Your task to perform on an android device: turn on javascript in the chrome app Image 0: 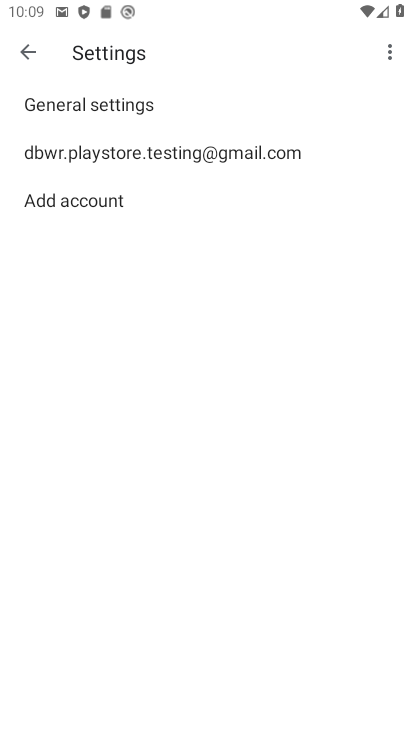
Step 0: press home button
Your task to perform on an android device: turn on javascript in the chrome app Image 1: 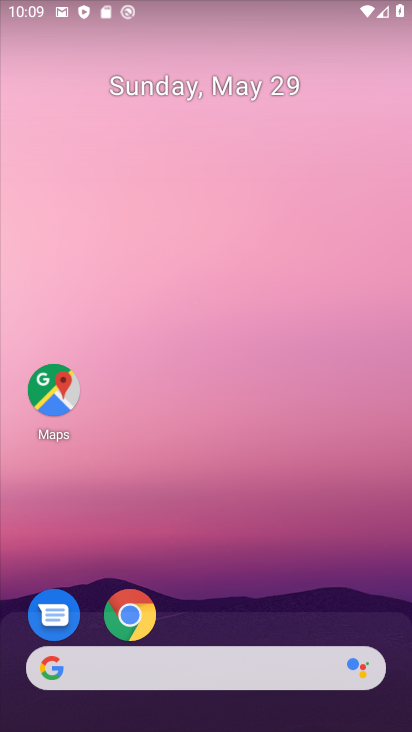
Step 1: drag from (351, 612) to (353, 61)
Your task to perform on an android device: turn on javascript in the chrome app Image 2: 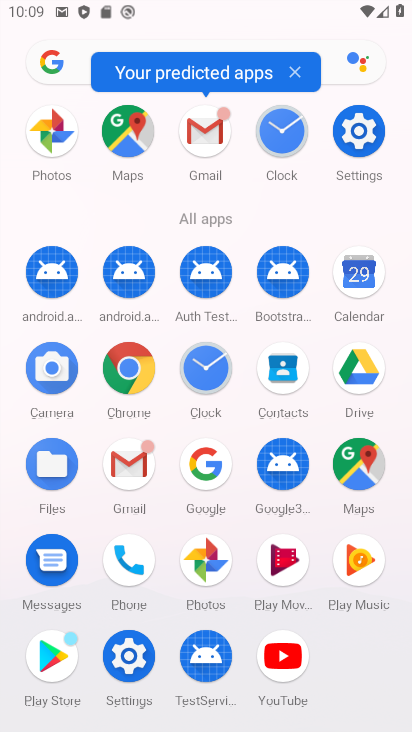
Step 2: click (130, 379)
Your task to perform on an android device: turn on javascript in the chrome app Image 3: 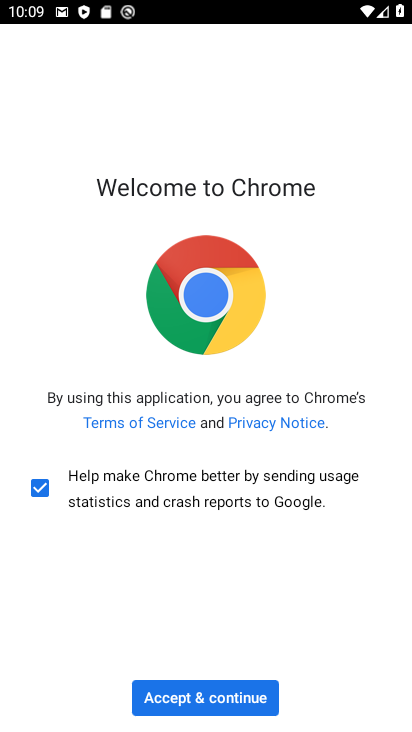
Step 3: click (196, 698)
Your task to perform on an android device: turn on javascript in the chrome app Image 4: 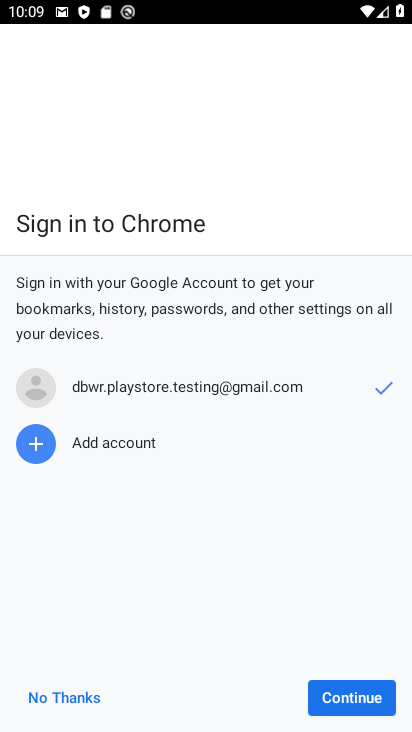
Step 4: click (326, 703)
Your task to perform on an android device: turn on javascript in the chrome app Image 5: 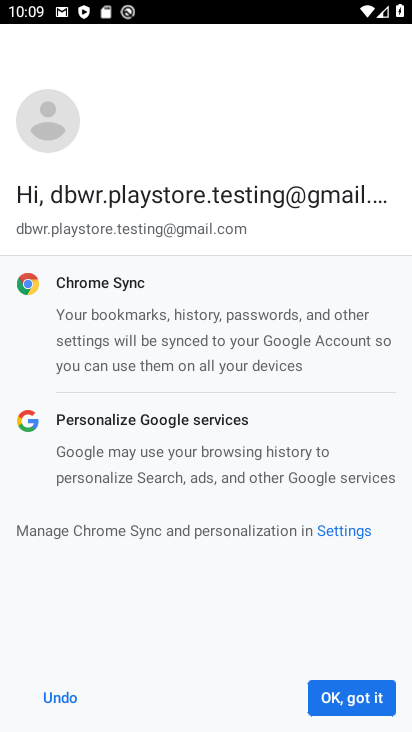
Step 5: click (326, 703)
Your task to perform on an android device: turn on javascript in the chrome app Image 6: 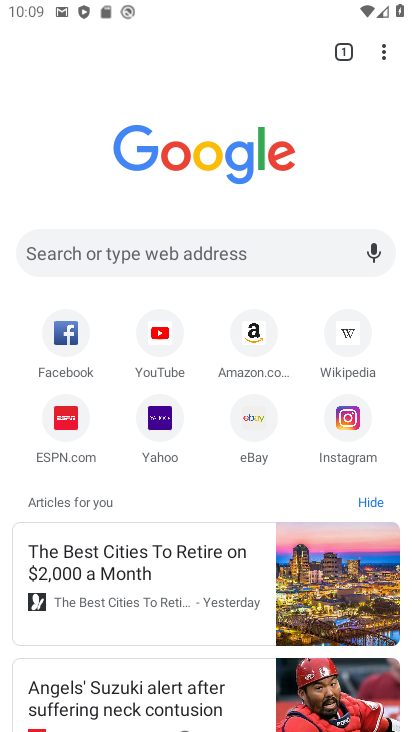
Step 6: click (384, 59)
Your task to perform on an android device: turn on javascript in the chrome app Image 7: 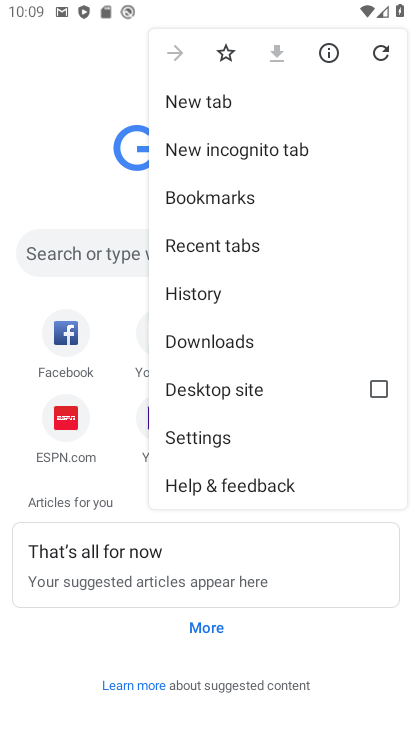
Step 7: click (237, 439)
Your task to perform on an android device: turn on javascript in the chrome app Image 8: 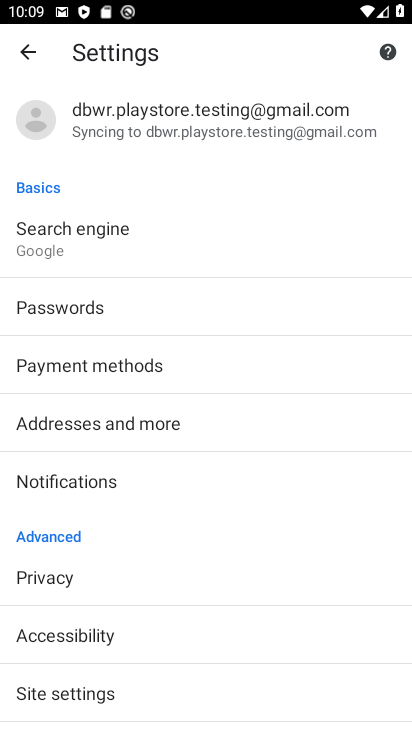
Step 8: drag from (305, 625) to (313, 478)
Your task to perform on an android device: turn on javascript in the chrome app Image 9: 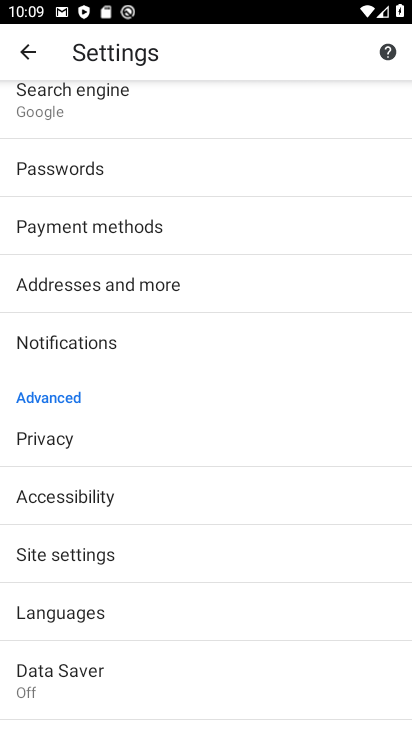
Step 9: drag from (334, 566) to (335, 442)
Your task to perform on an android device: turn on javascript in the chrome app Image 10: 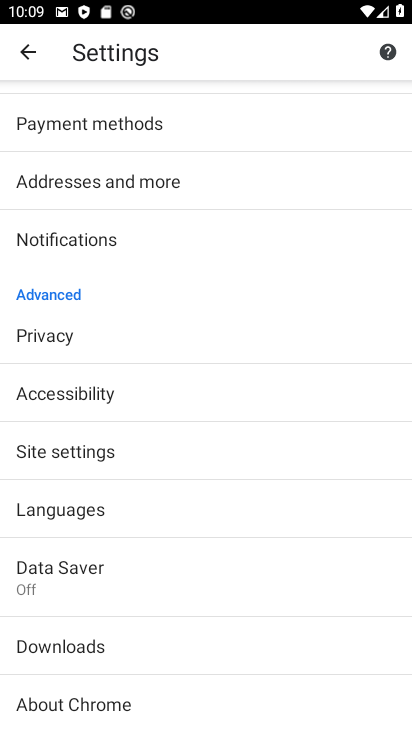
Step 10: drag from (332, 567) to (331, 384)
Your task to perform on an android device: turn on javascript in the chrome app Image 11: 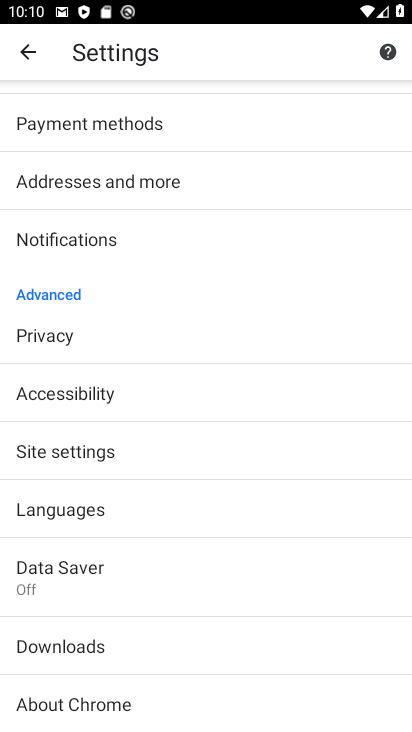
Step 11: drag from (334, 605) to (323, 384)
Your task to perform on an android device: turn on javascript in the chrome app Image 12: 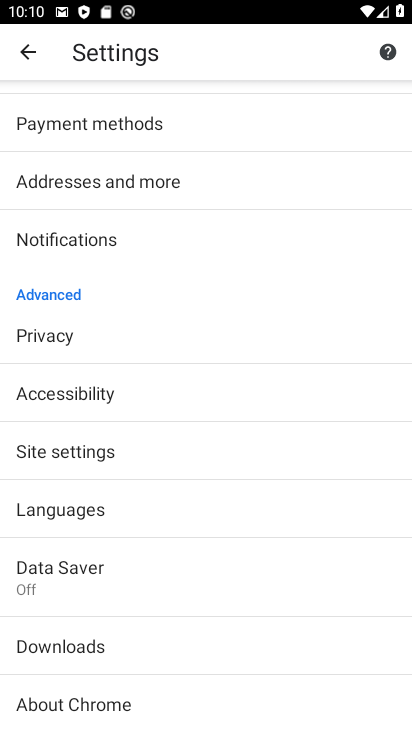
Step 12: drag from (324, 282) to (320, 432)
Your task to perform on an android device: turn on javascript in the chrome app Image 13: 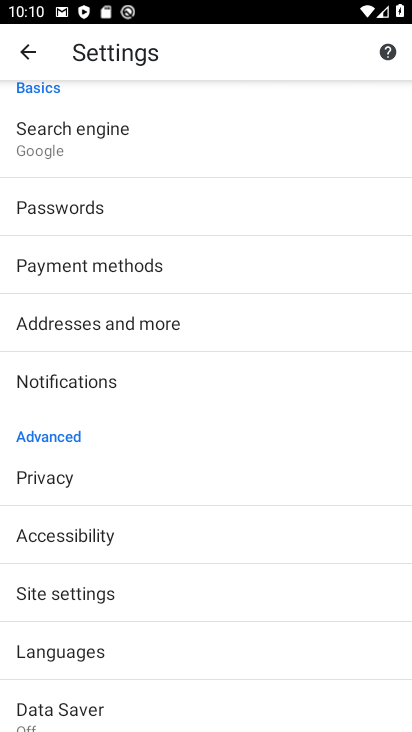
Step 13: drag from (335, 284) to (346, 379)
Your task to perform on an android device: turn on javascript in the chrome app Image 14: 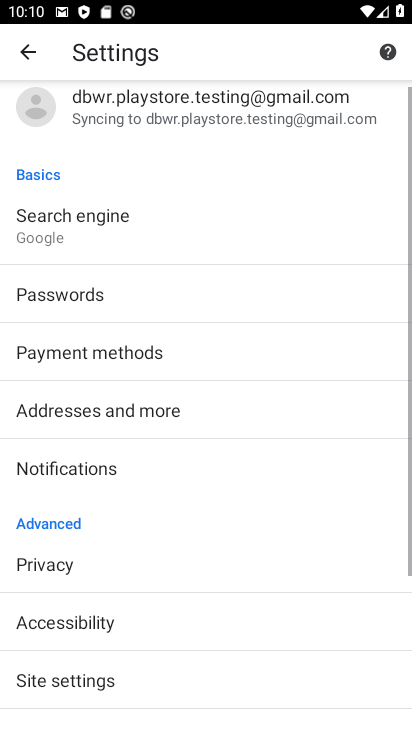
Step 14: drag from (339, 180) to (337, 366)
Your task to perform on an android device: turn on javascript in the chrome app Image 15: 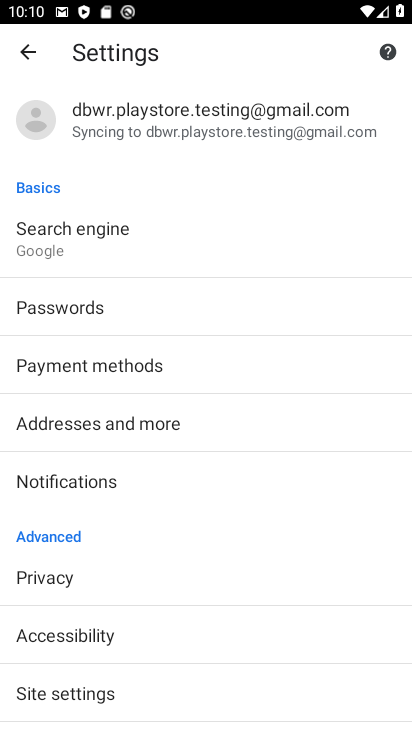
Step 15: drag from (348, 482) to (341, 373)
Your task to perform on an android device: turn on javascript in the chrome app Image 16: 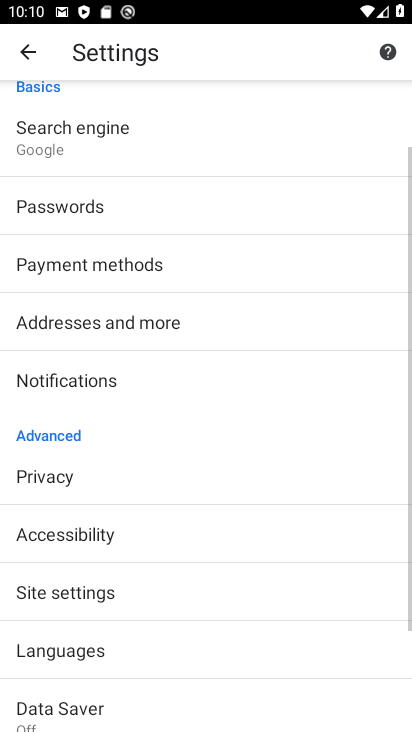
Step 16: drag from (338, 521) to (336, 343)
Your task to perform on an android device: turn on javascript in the chrome app Image 17: 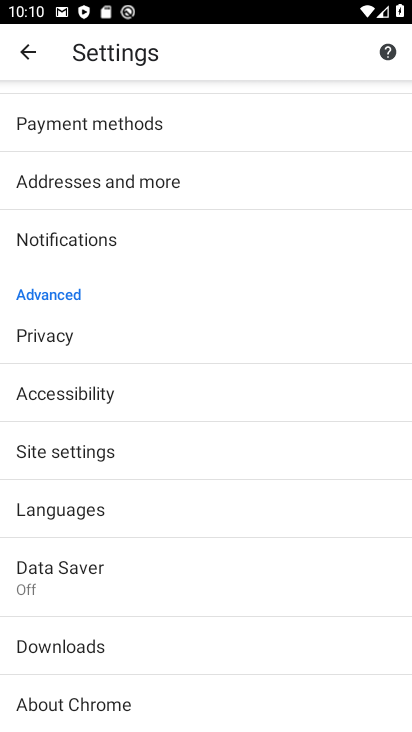
Step 17: drag from (293, 567) to (316, 342)
Your task to perform on an android device: turn on javascript in the chrome app Image 18: 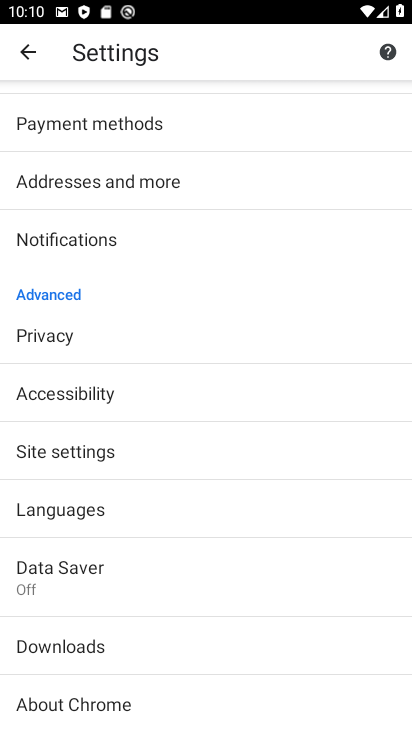
Step 18: click (254, 447)
Your task to perform on an android device: turn on javascript in the chrome app Image 19: 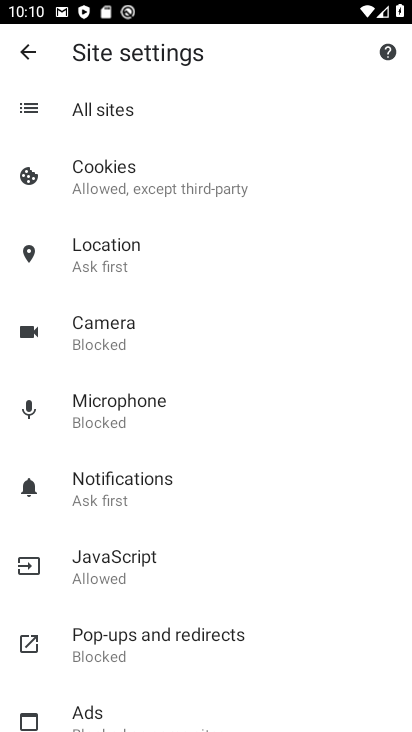
Step 19: drag from (293, 534) to (292, 399)
Your task to perform on an android device: turn on javascript in the chrome app Image 20: 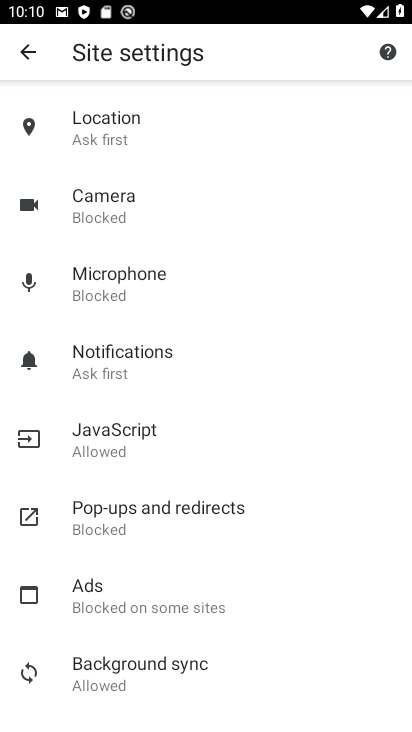
Step 20: click (140, 426)
Your task to perform on an android device: turn on javascript in the chrome app Image 21: 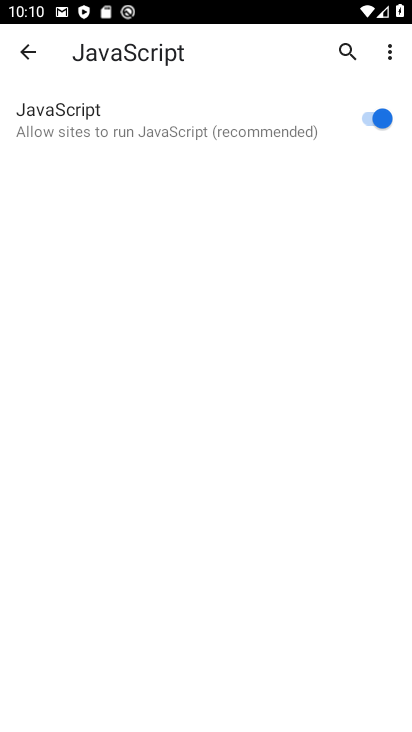
Step 21: task complete